Your task to perform on an android device: Turn off the flashlight Image 0: 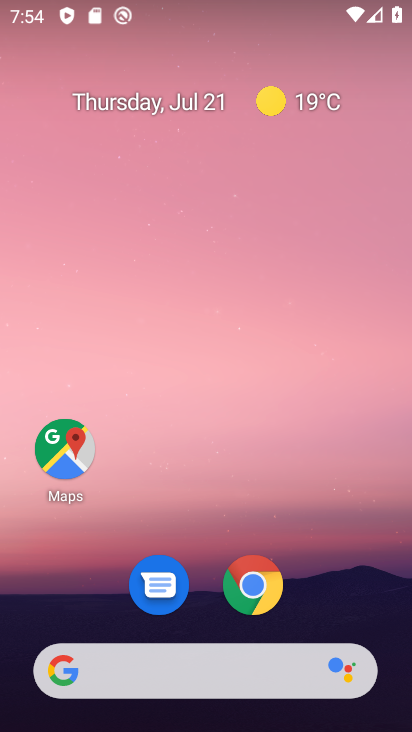
Step 0: drag from (330, 579) to (296, 12)
Your task to perform on an android device: Turn off the flashlight Image 1: 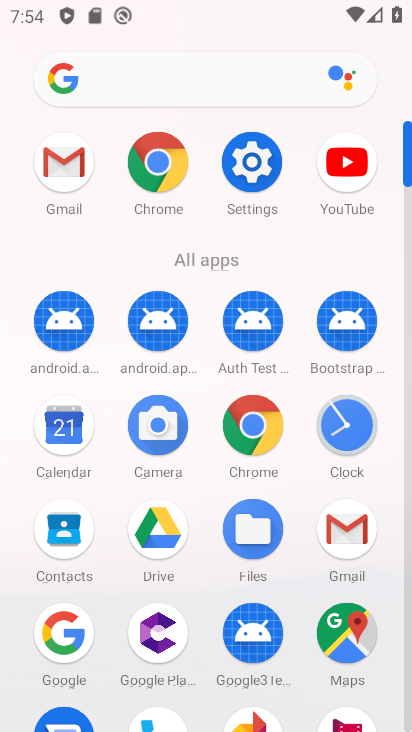
Step 1: click (249, 158)
Your task to perform on an android device: Turn off the flashlight Image 2: 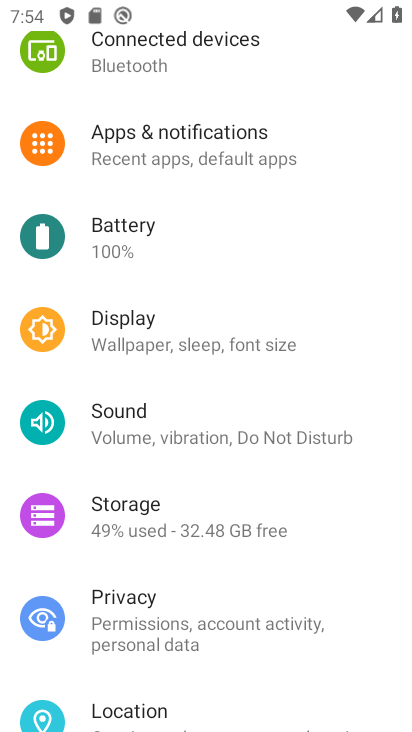
Step 2: drag from (253, 198) to (201, 730)
Your task to perform on an android device: Turn off the flashlight Image 3: 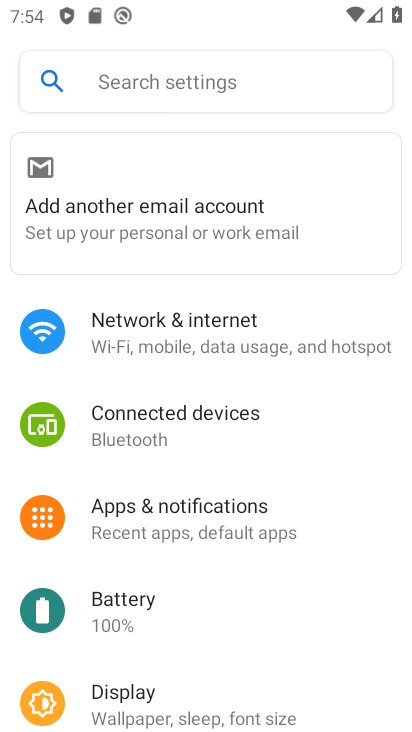
Step 3: click (204, 73)
Your task to perform on an android device: Turn off the flashlight Image 4: 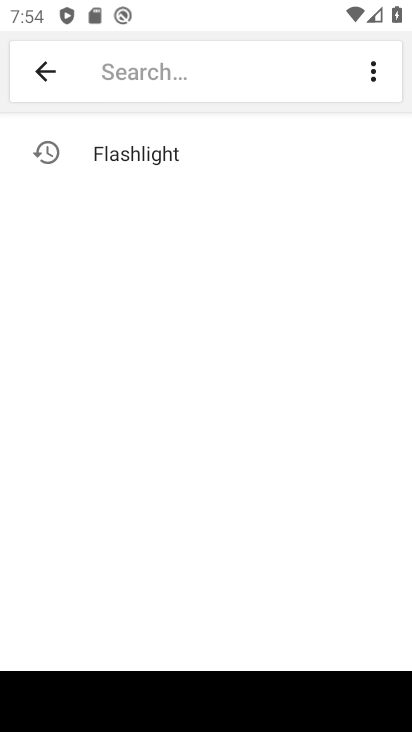
Step 4: click (156, 151)
Your task to perform on an android device: Turn off the flashlight Image 5: 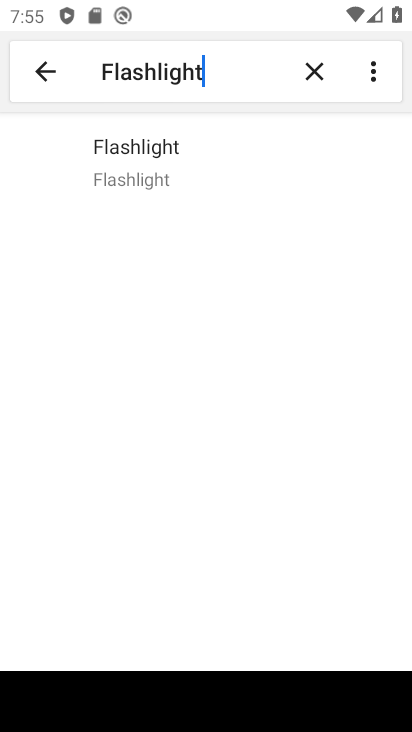
Step 5: task complete